Your task to perform on an android device: turn on data saver in the chrome app Image 0: 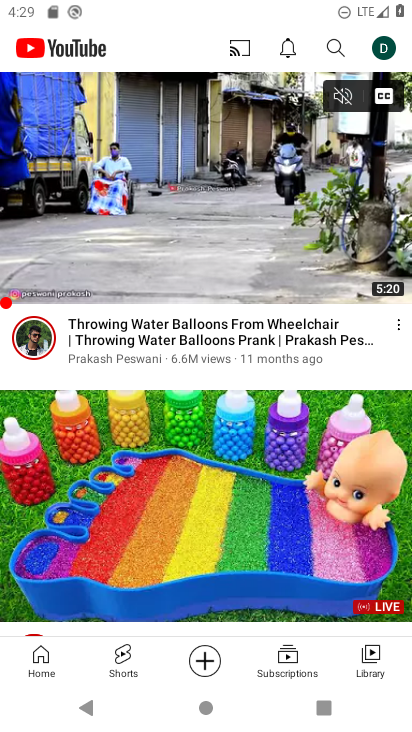
Step 0: press home button
Your task to perform on an android device: turn on data saver in the chrome app Image 1: 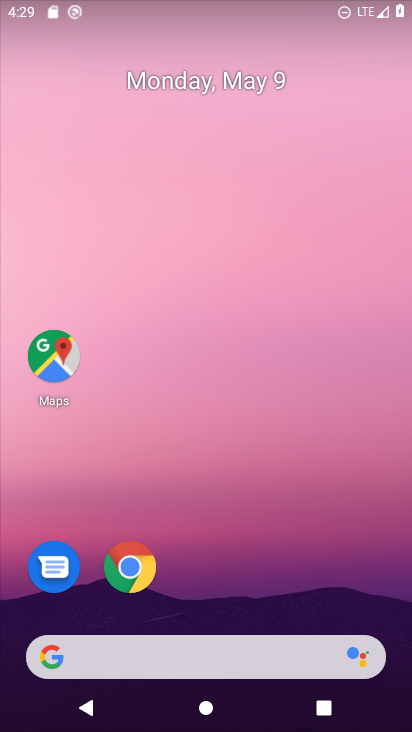
Step 1: click (130, 576)
Your task to perform on an android device: turn on data saver in the chrome app Image 2: 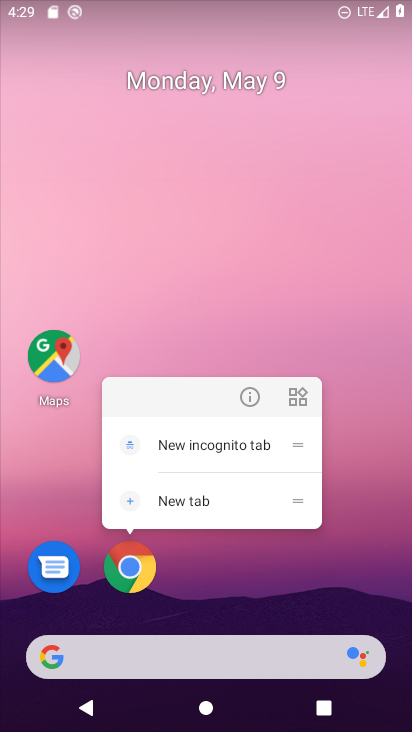
Step 2: click (131, 577)
Your task to perform on an android device: turn on data saver in the chrome app Image 3: 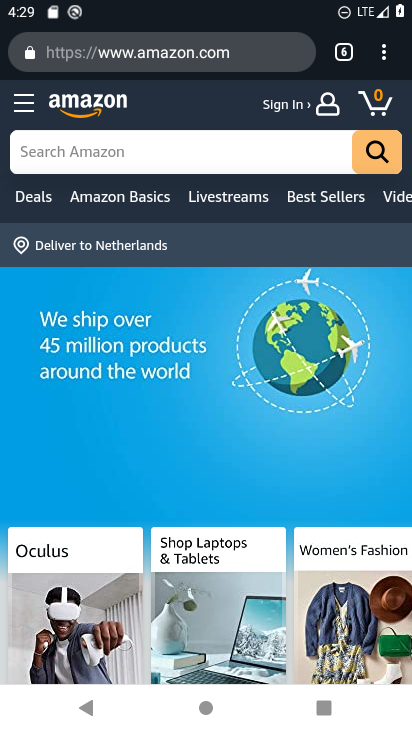
Step 3: click (382, 60)
Your task to perform on an android device: turn on data saver in the chrome app Image 4: 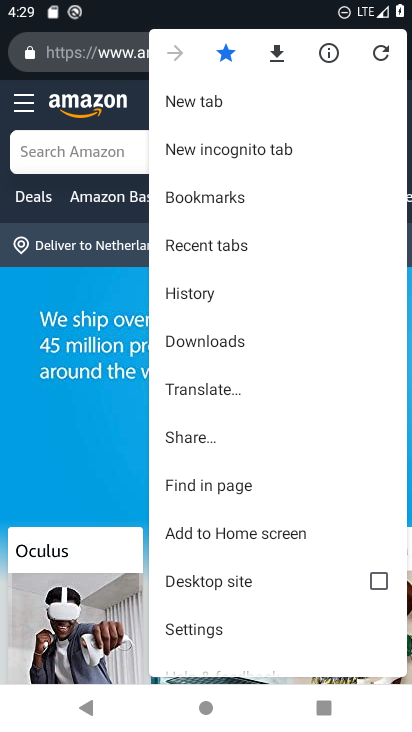
Step 4: click (196, 633)
Your task to perform on an android device: turn on data saver in the chrome app Image 5: 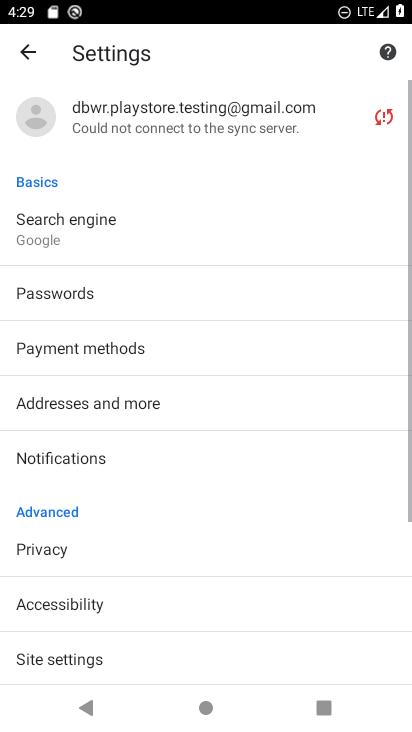
Step 5: drag from (196, 633) to (239, 376)
Your task to perform on an android device: turn on data saver in the chrome app Image 6: 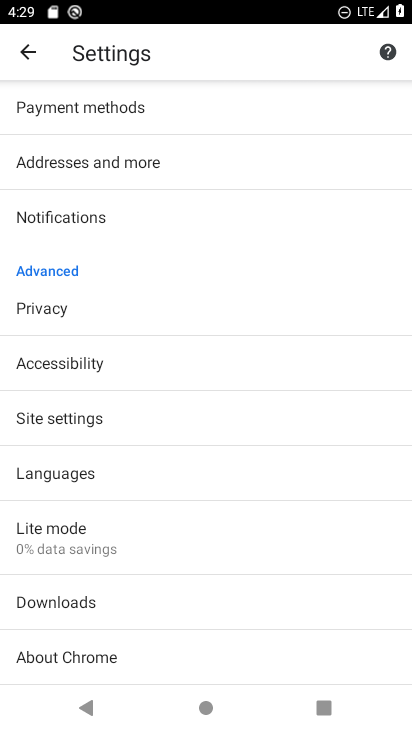
Step 6: click (93, 538)
Your task to perform on an android device: turn on data saver in the chrome app Image 7: 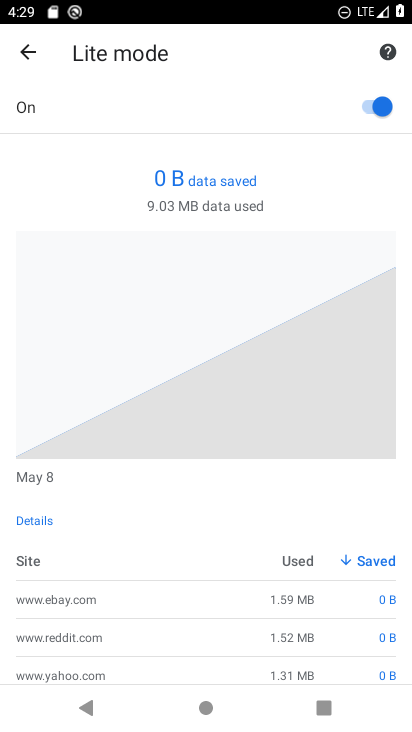
Step 7: task complete